Your task to perform on an android device: install app "Mercado Libre" Image 0: 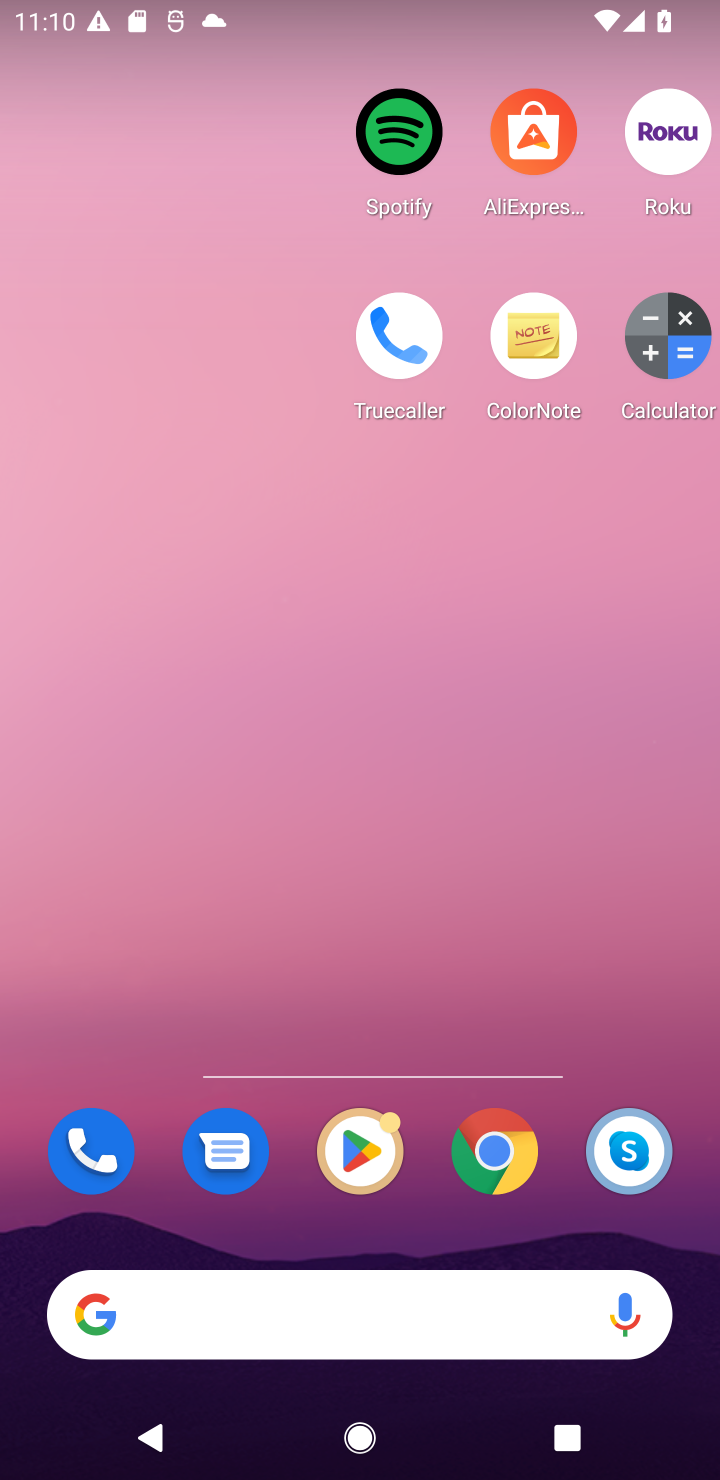
Step 0: press home button
Your task to perform on an android device: install app "Mercado Libre" Image 1: 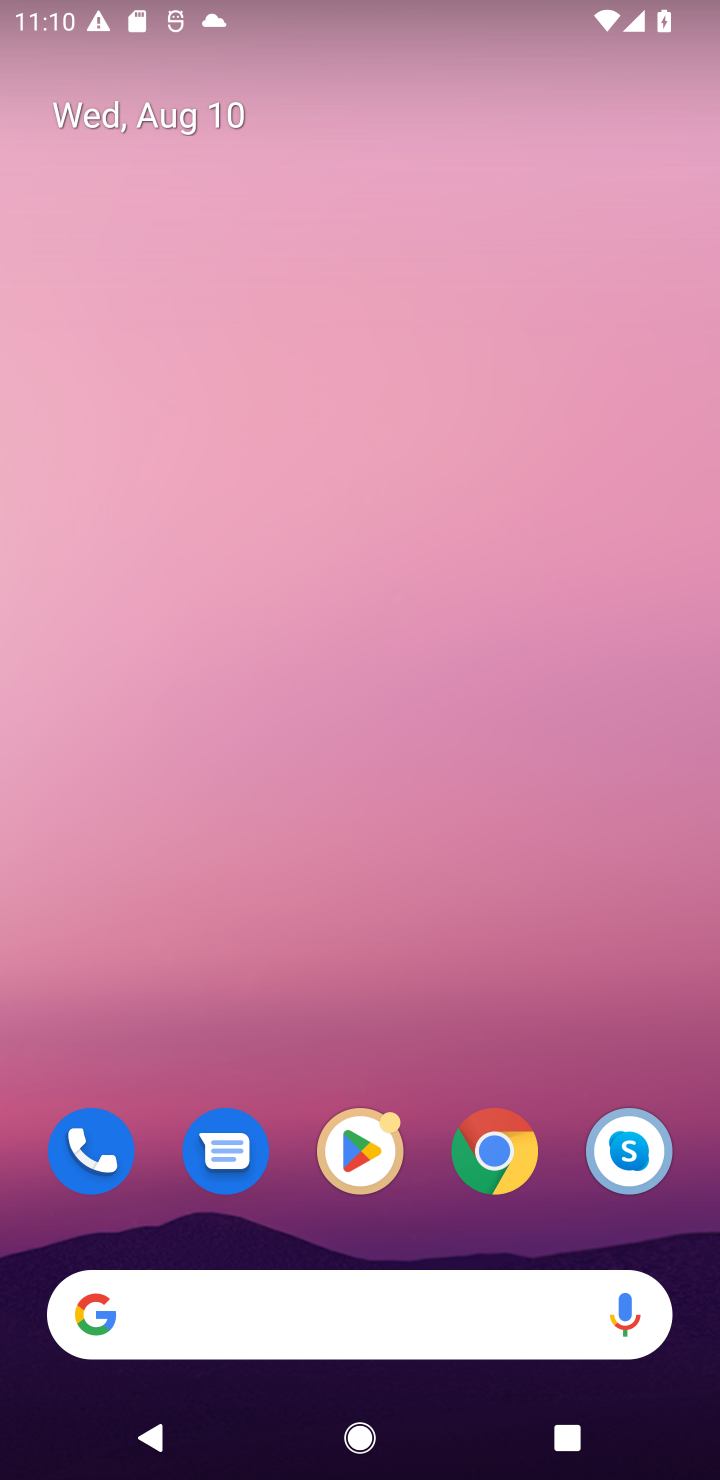
Step 1: drag from (418, 1092) to (456, 97)
Your task to perform on an android device: install app "Mercado Libre" Image 2: 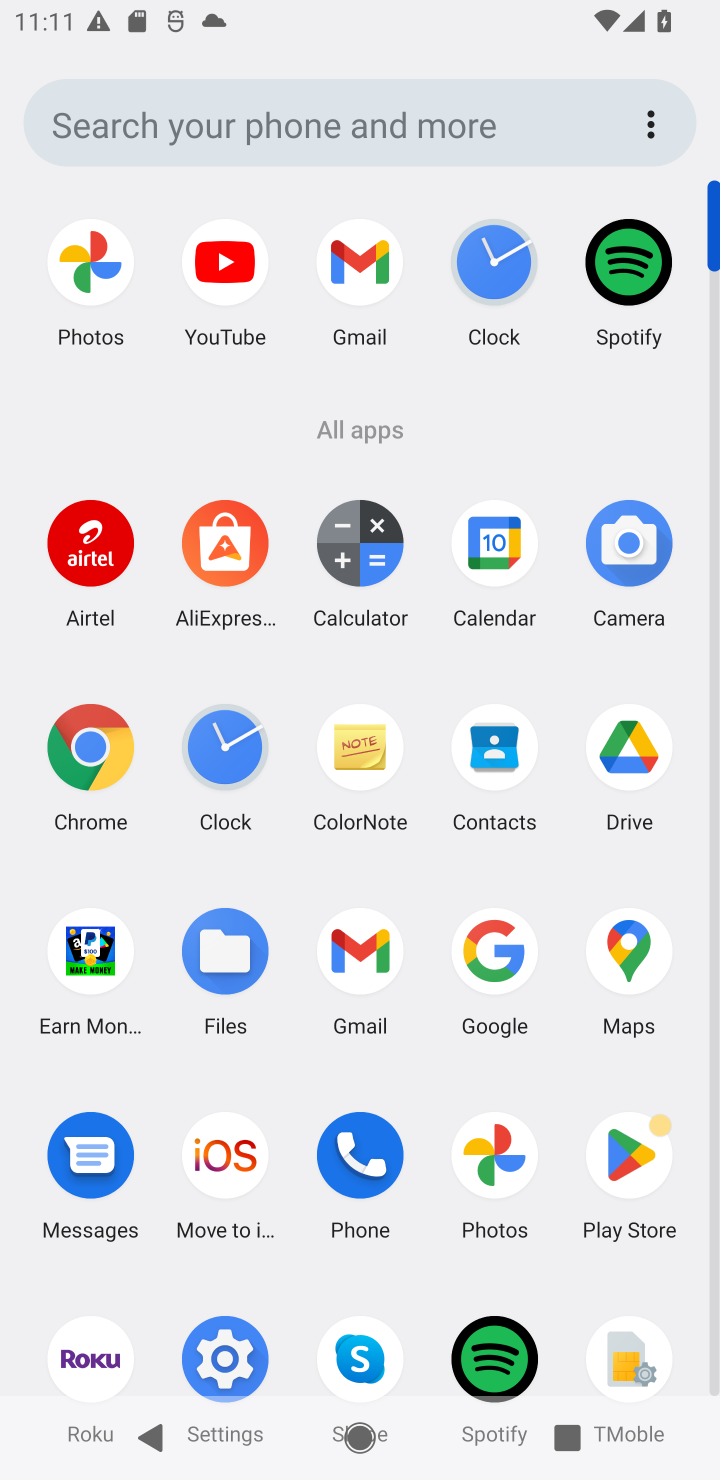
Step 2: click (645, 1144)
Your task to perform on an android device: install app "Mercado Libre" Image 3: 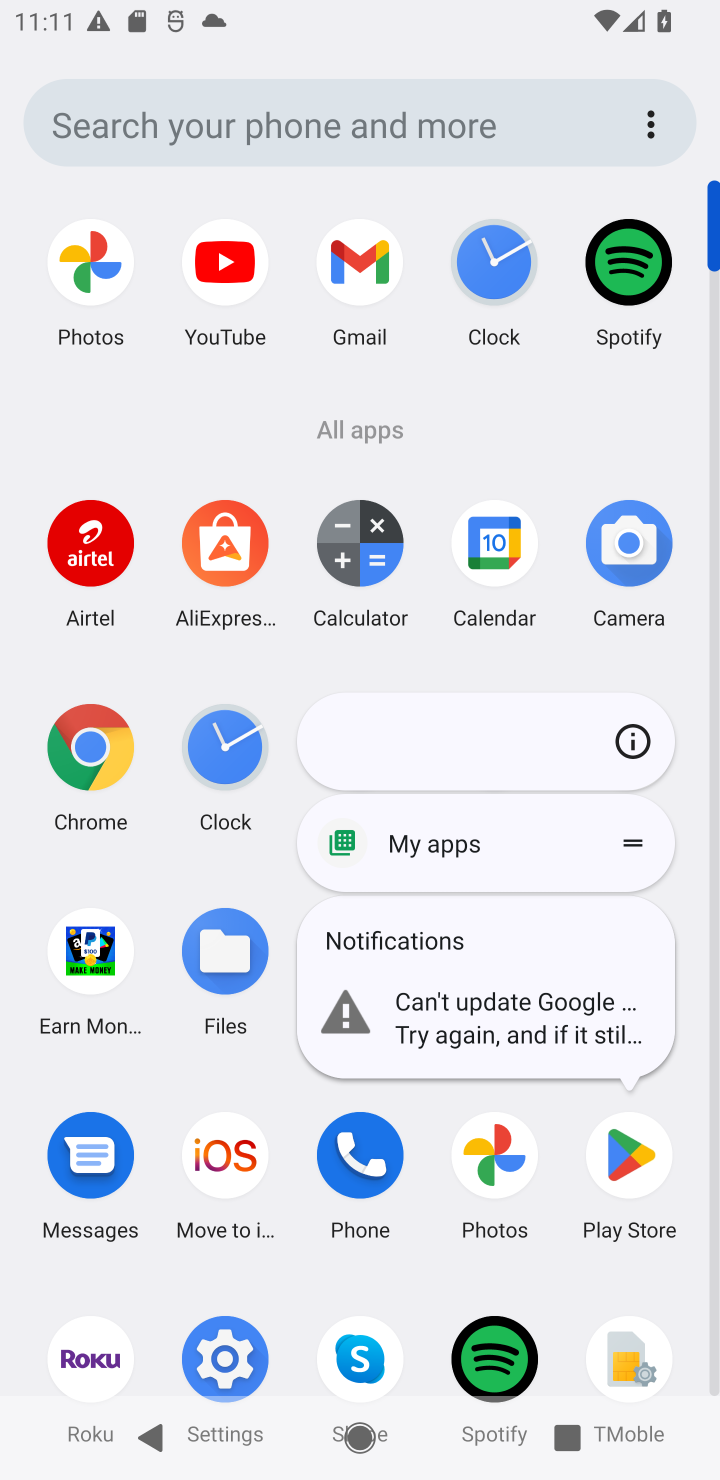
Step 3: click (638, 1150)
Your task to perform on an android device: install app "Mercado Libre" Image 4: 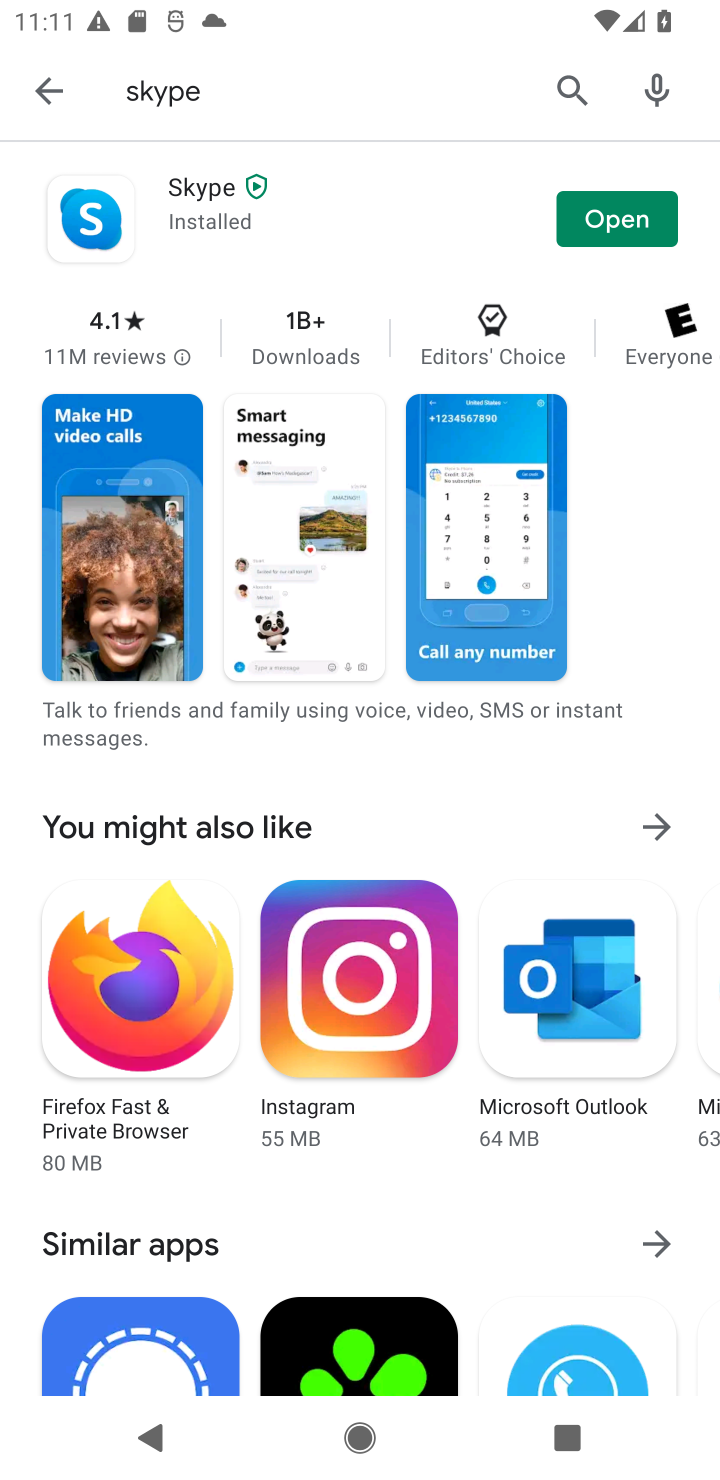
Step 4: click (578, 75)
Your task to perform on an android device: install app "Mercado Libre" Image 5: 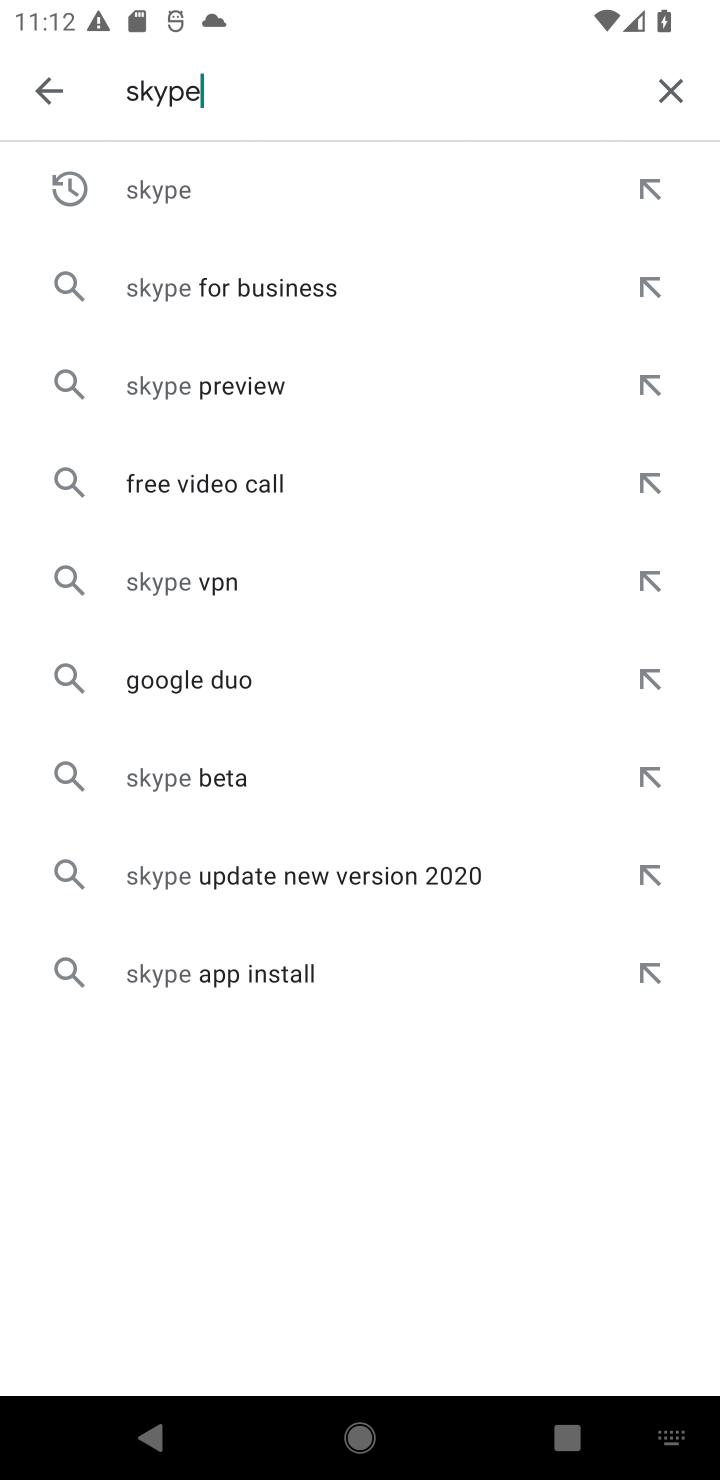
Step 5: click (667, 82)
Your task to perform on an android device: install app "Mercado Libre" Image 6: 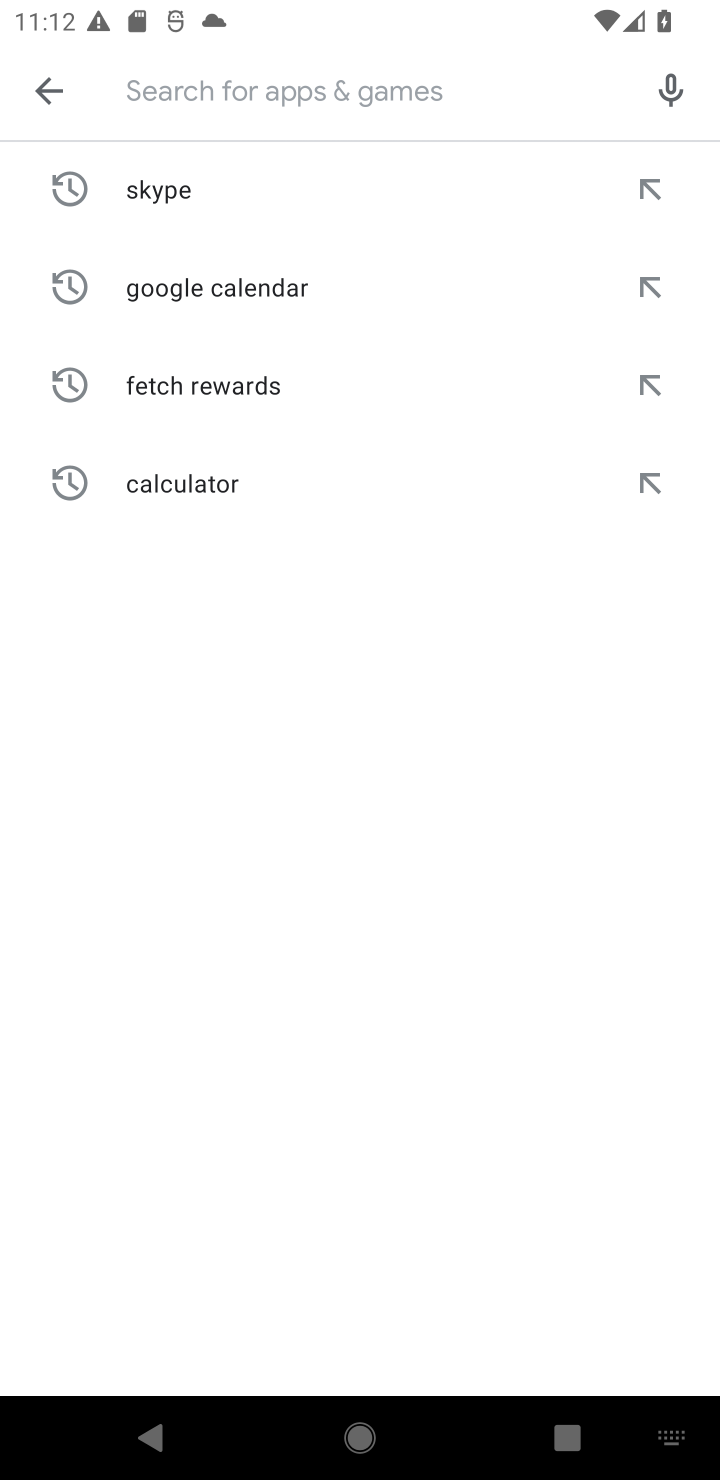
Step 6: type "Mercado Libre"
Your task to perform on an android device: install app "Mercado Libre" Image 7: 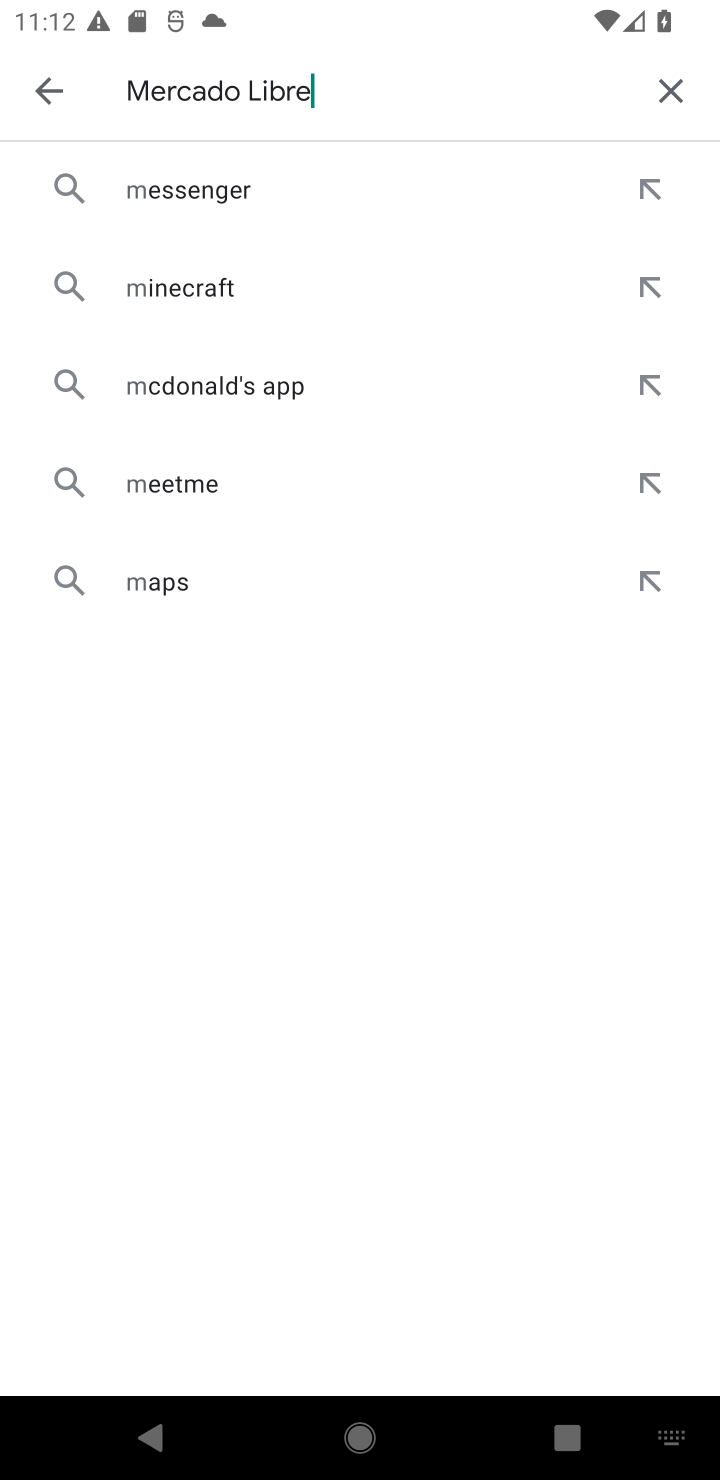
Step 7: type ""
Your task to perform on an android device: install app "Mercado Libre" Image 8: 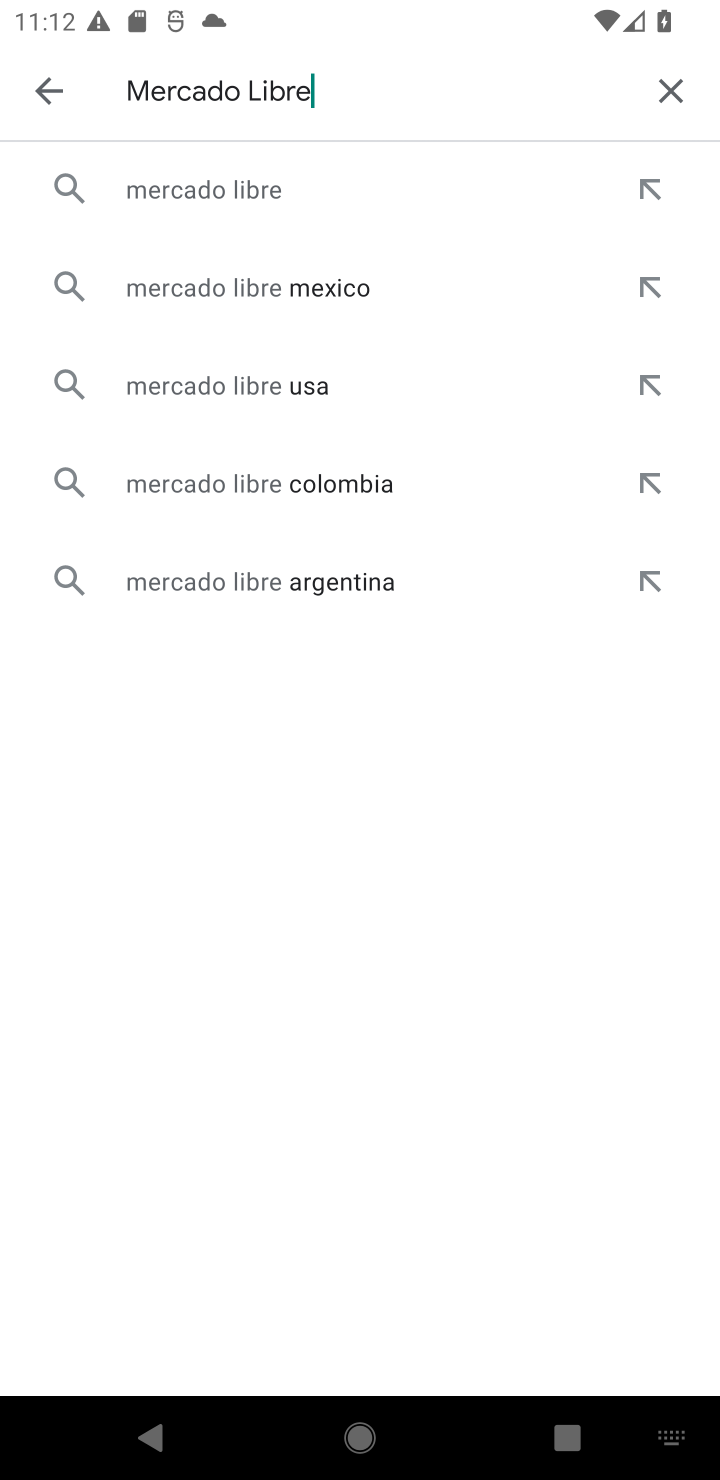
Step 8: click (324, 183)
Your task to perform on an android device: install app "Mercado Libre" Image 9: 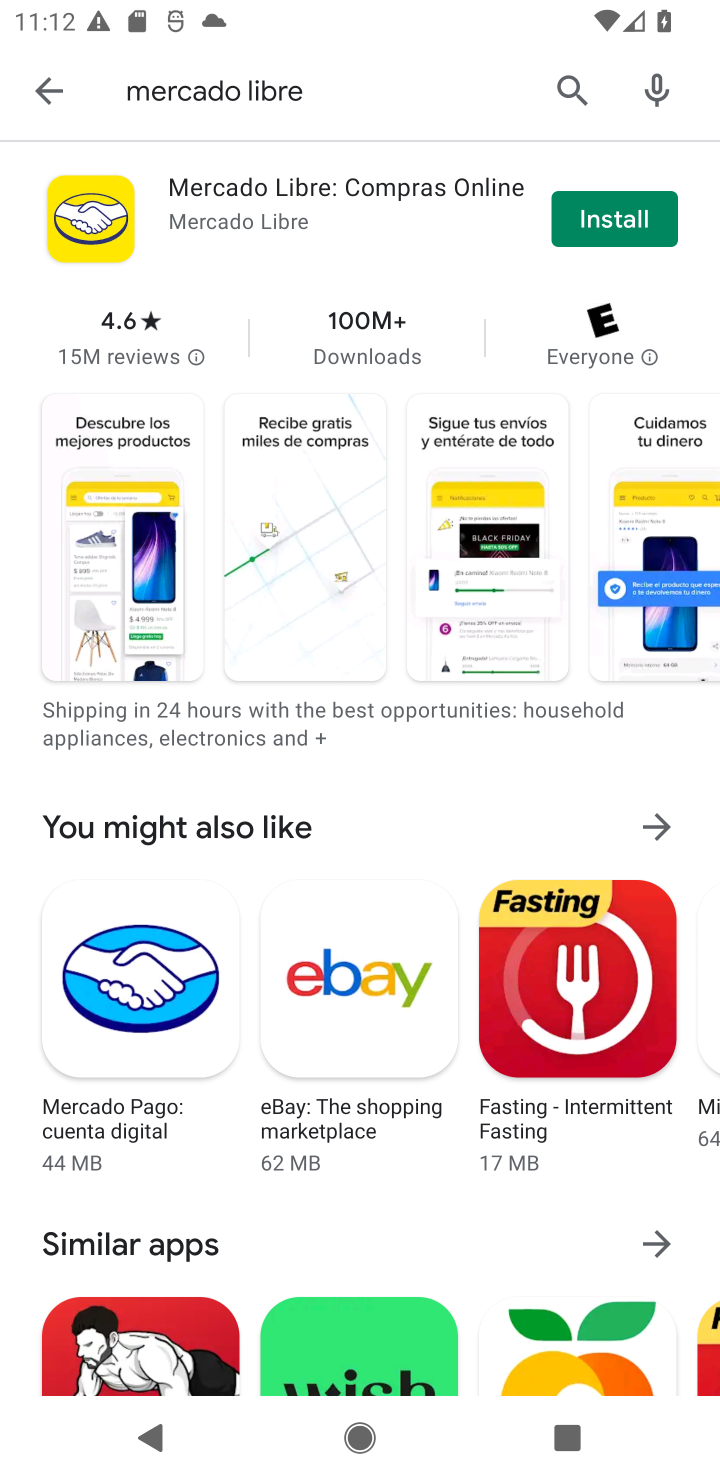
Step 9: click (613, 214)
Your task to perform on an android device: install app "Mercado Libre" Image 10: 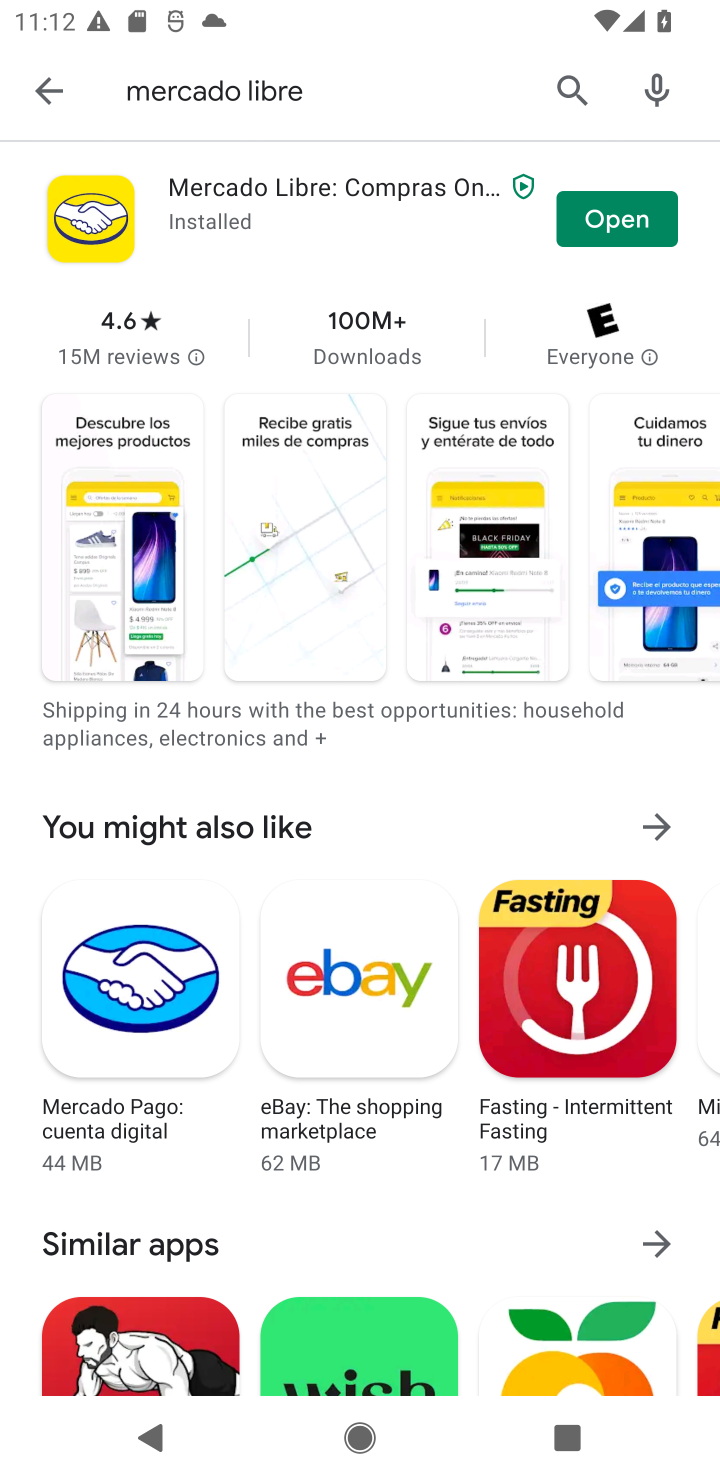
Step 10: click (618, 220)
Your task to perform on an android device: install app "Mercado Libre" Image 11: 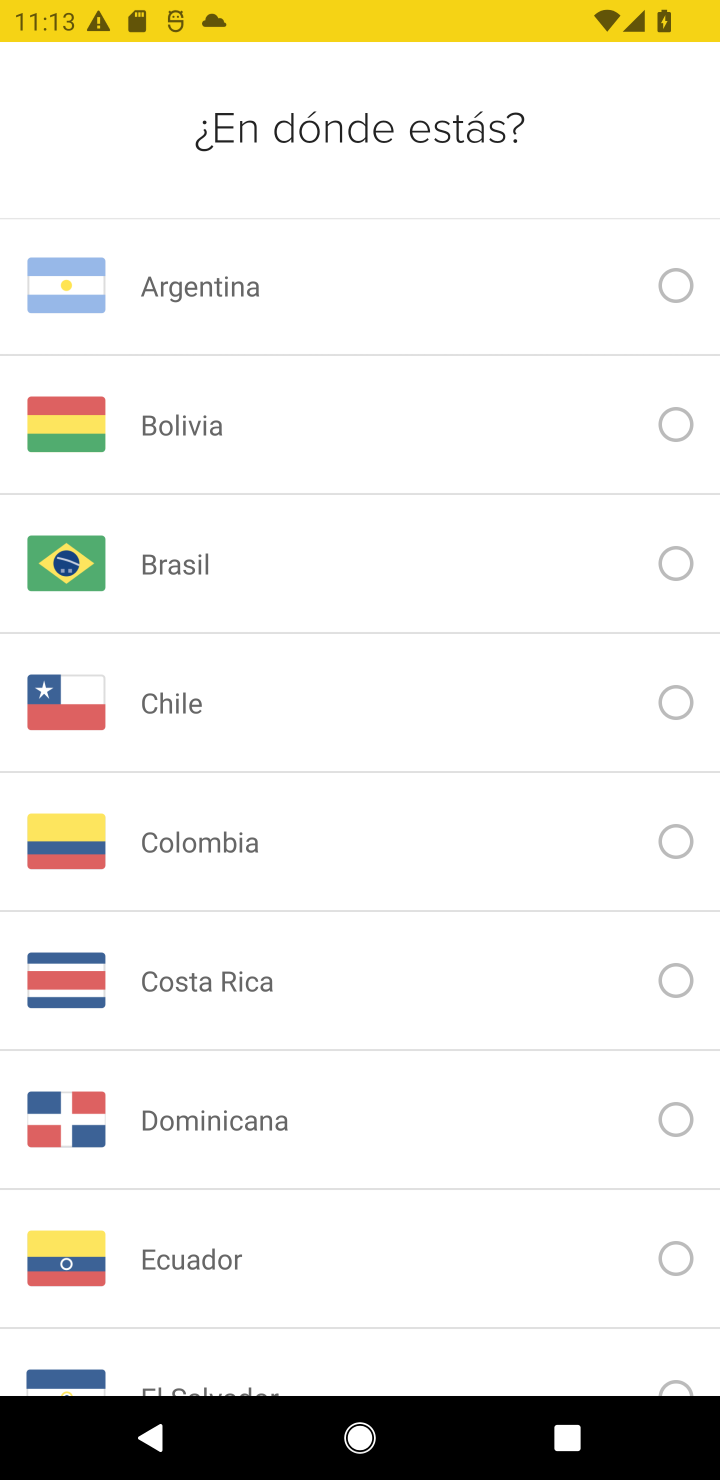
Step 11: task complete